Your task to perform on an android device: What's the weather today? Image 0: 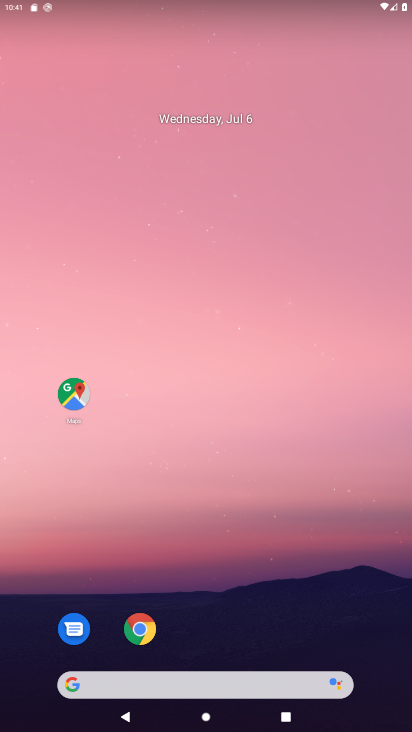
Step 0: drag from (219, 652) to (257, 43)
Your task to perform on an android device: What's the weather today? Image 1: 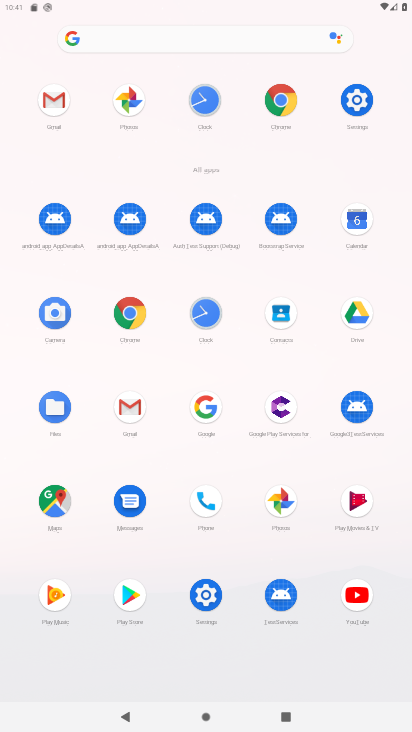
Step 1: press back button
Your task to perform on an android device: What's the weather today? Image 2: 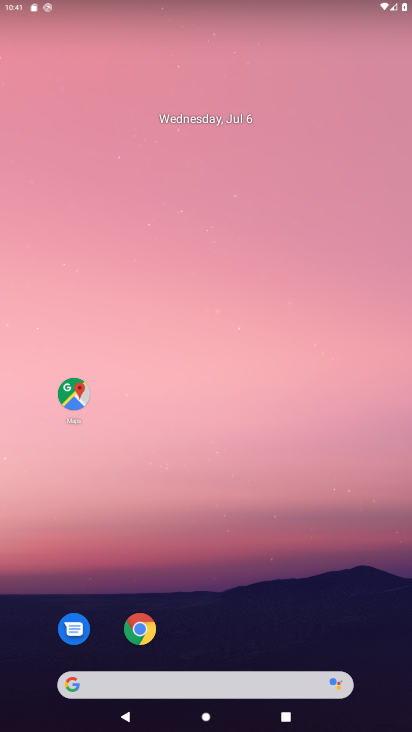
Step 2: drag from (31, 273) to (399, 307)
Your task to perform on an android device: What's the weather today? Image 3: 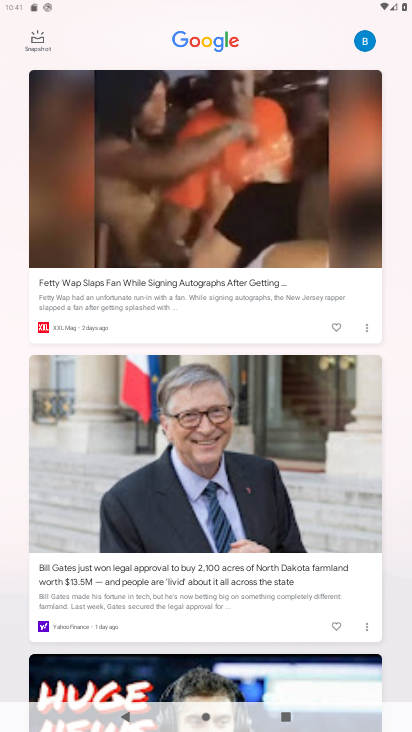
Step 3: drag from (396, 317) to (43, 330)
Your task to perform on an android device: What's the weather today? Image 4: 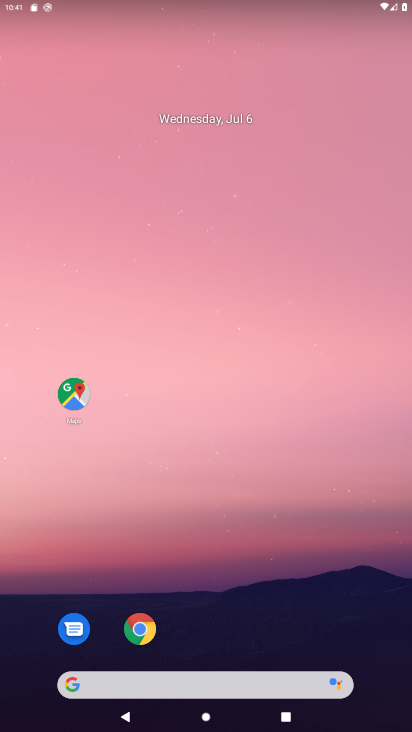
Step 4: click (142, 679)
Your task to perform on an android device: What's the weather today? Image 5: 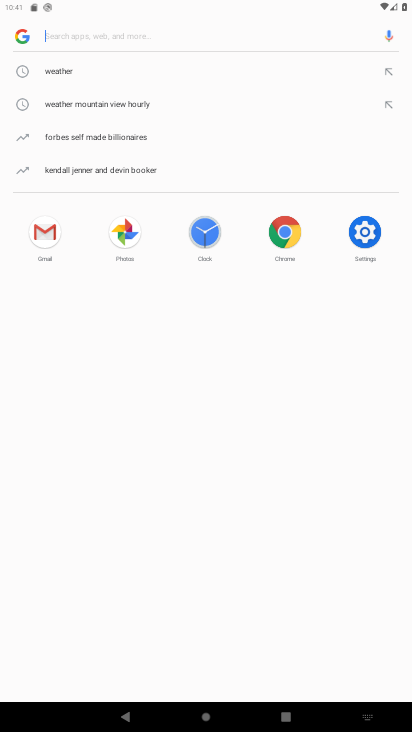
Step 5: click (78, 69)
Your task to perform on an android device: What's the weather today? Image 6: 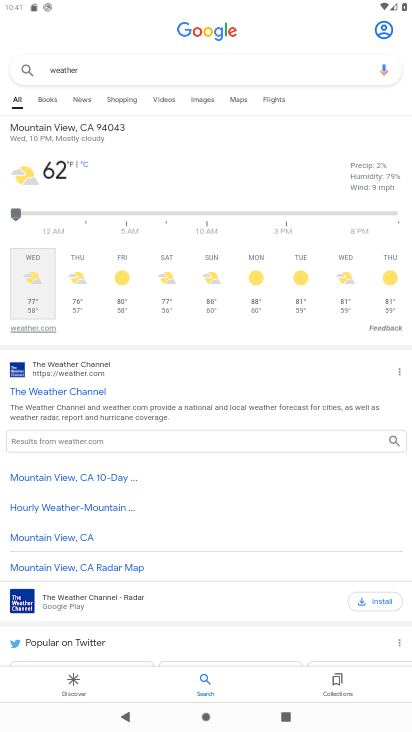
Step 6: click (122, 173)
Your task to perform on an android device: What's the weather today? Image 7: 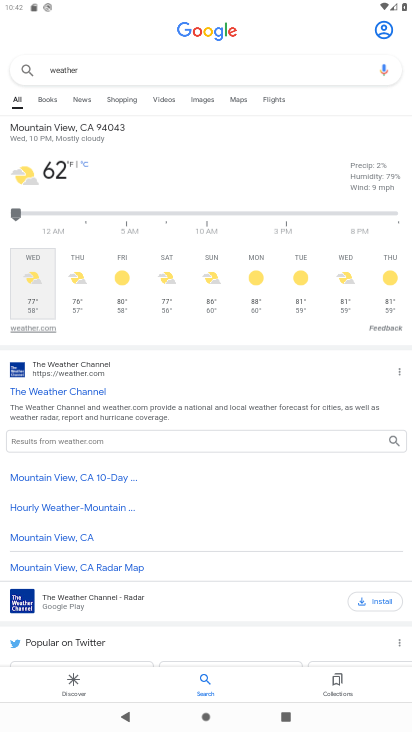
Step 7: drag from (370, 281) to (168, 297)
Your task to perform on an android device: What's the weather today? Image 8: 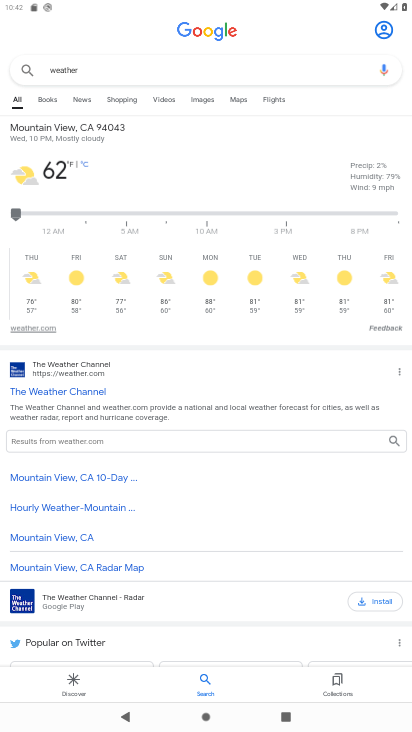
Step 8: drag from (117, 281) to (349, 299)
Your task to perform on an android device: What's the weather today? Image 9: 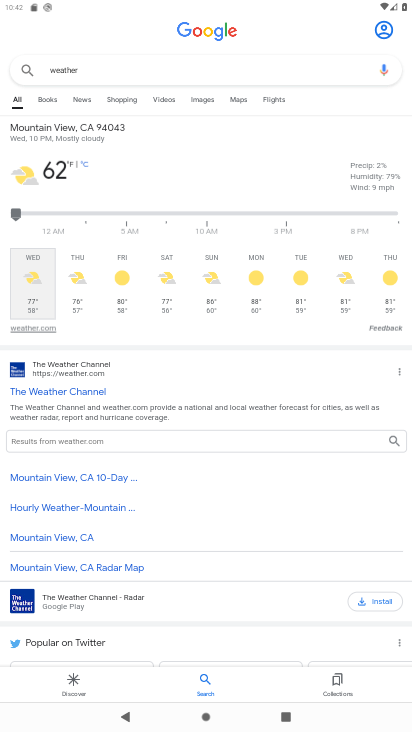
Step 9: click (31, 276)
Your task to perform on an android device: What's the weather today? Image 10: 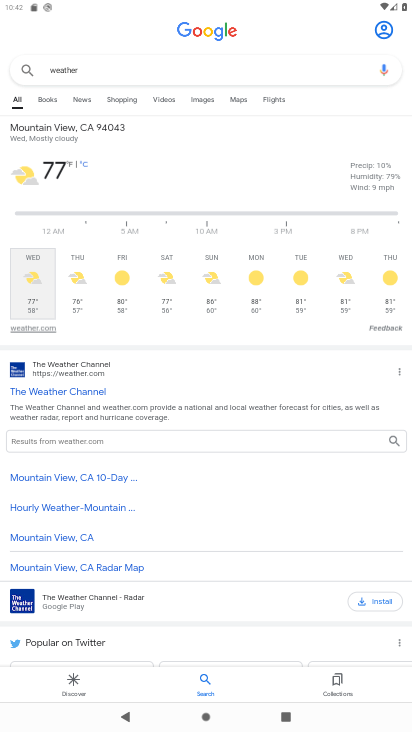
Step 10: task complete